Your task to perform on an android device: Open calendar and show me the first week of next month Image 0: 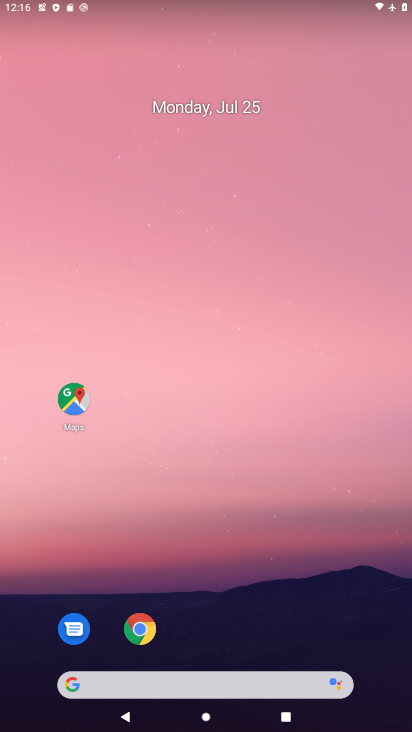
Step 0: click (225, 632)
Your task to perform on an android device: Open calendar and show me the first week of next month Image 1: 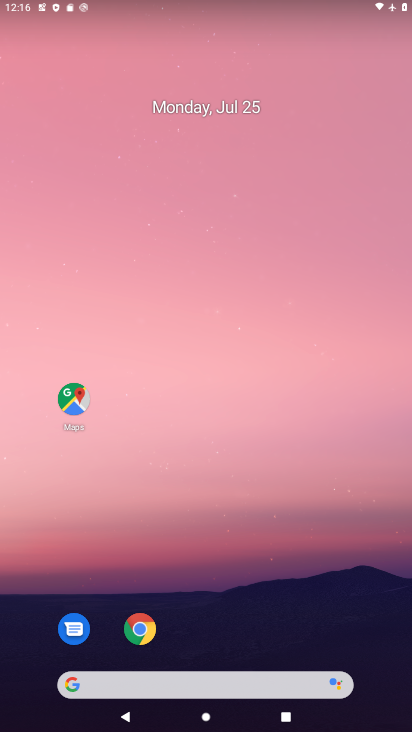
Step 1: task complete